Your task to perform on an android device: turn off improve location accuracy Image 0: 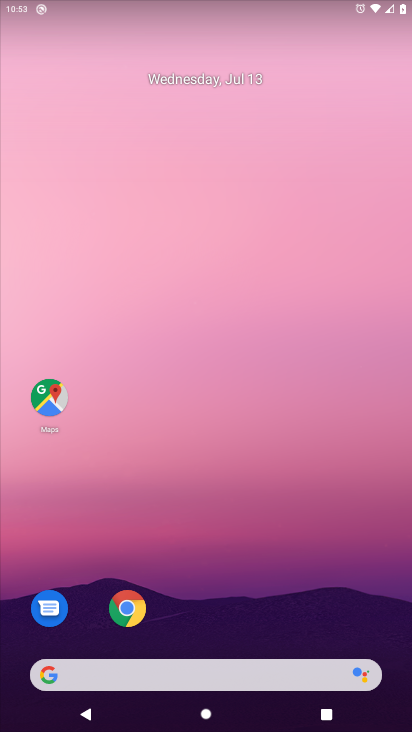
Step 0: drag from (56, 651) to (220, 116)
Your task to perform on an android device: turn off improve location accuracy Image 1: 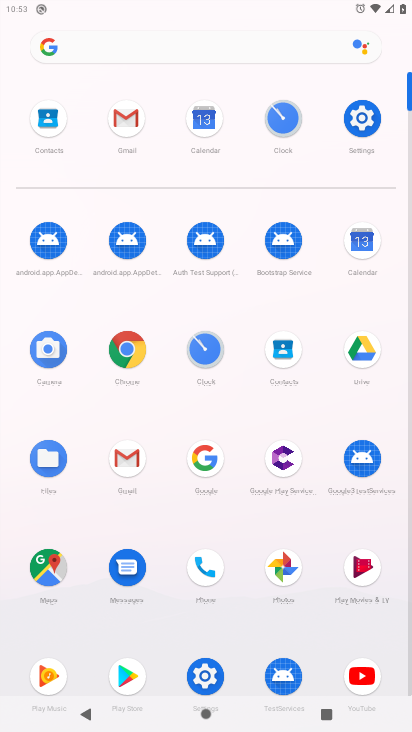
Step 1: click (195, 678)
Your task to perform on an android device: turn off improve location accuracy Image 2: 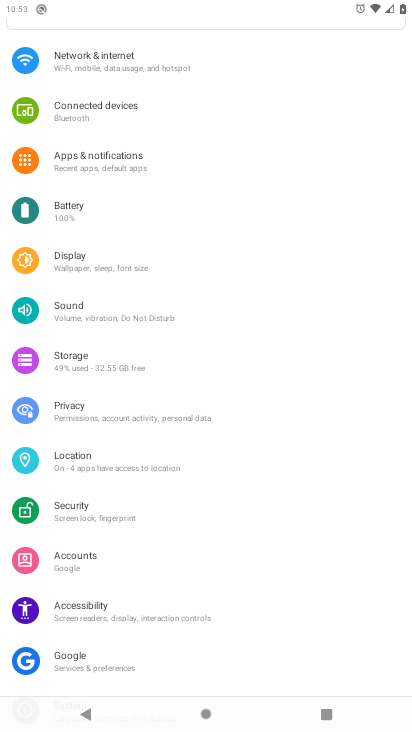
Step 2: click (87, 452)
Your task to perform on an android device: turn off improve location accuracy Image 3: 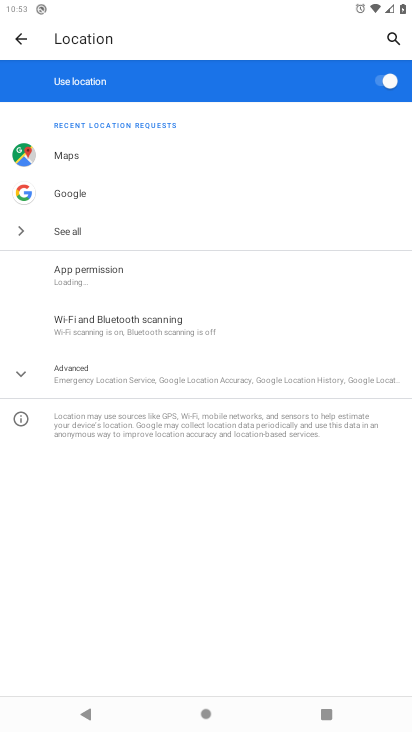
Step 3: click (94, 369)
Your task to perform on an android device: turn off improve location accuracy Image 4: 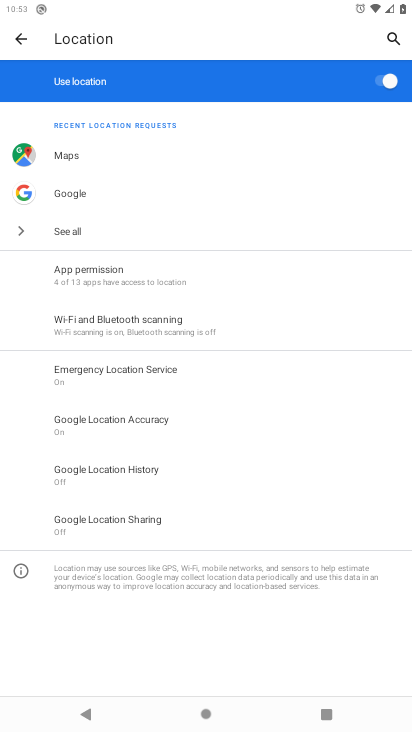
Step 4: click (100, 415)
Your task to perform on an android device: turn off improve location accuracy Image 5: 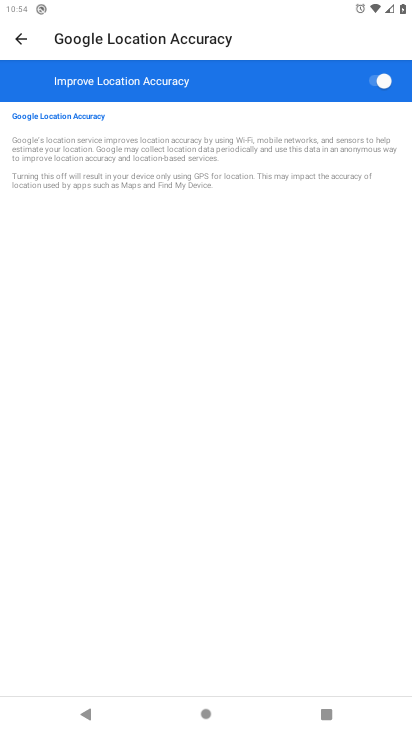
Step 5: click (383, 79)
Your task to perform on an android device: turn off improve location accuracy Image 6: 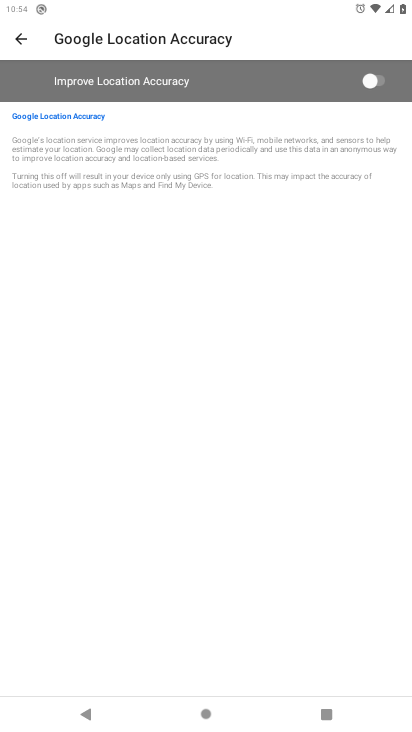
Step 6: task complete